Your task to perform on an android device: See recent photos Image 0: 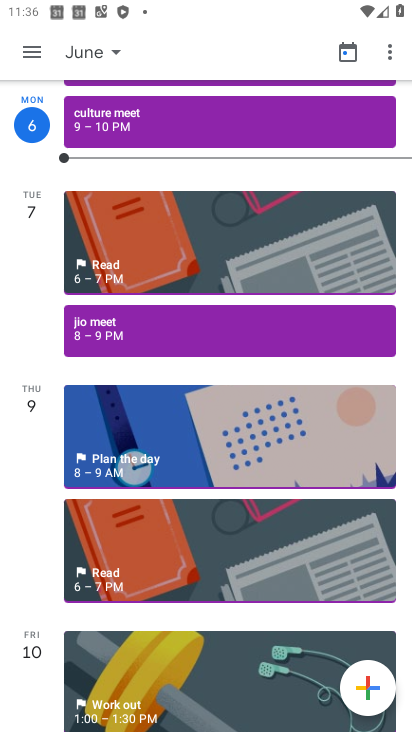
Step 0: press home button
Your task to perform on an android device: See recent photos Image 1: 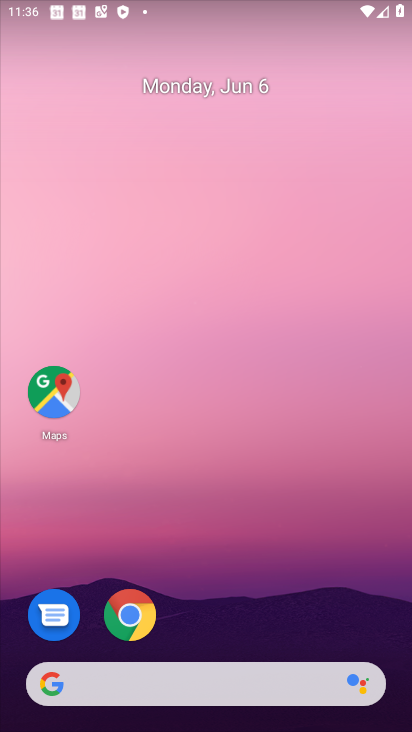
Step 1: drag from (239, 584) to (185, 79)
Your task to perform on an android device: See recent photos Image 2: 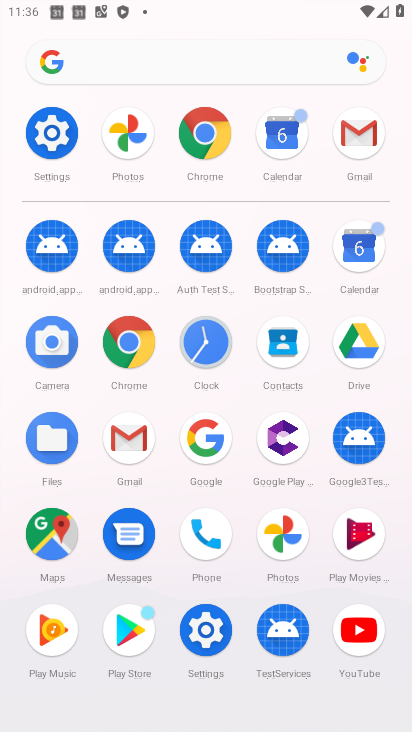
Step 2: click (134, 164)
Your task to perform on an android device: See recent photos Image 3: 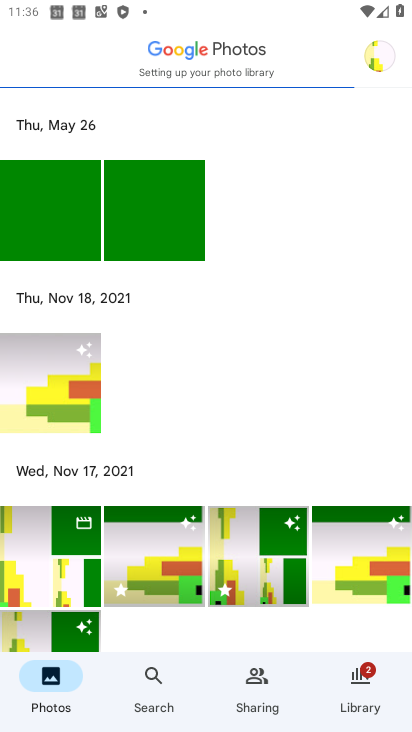
Step 3: task complete